Your task to perform on an android device: Open Yahoo.com Image 0: 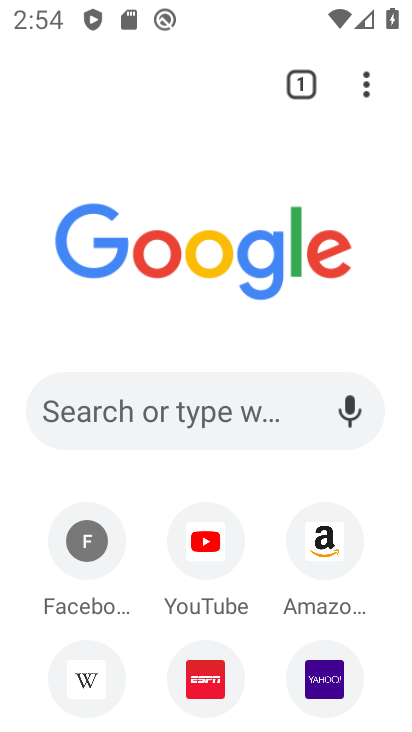
Step 0: click (332, 679)
Your task to perform on an android device: Open Yahoo.com Image 1: 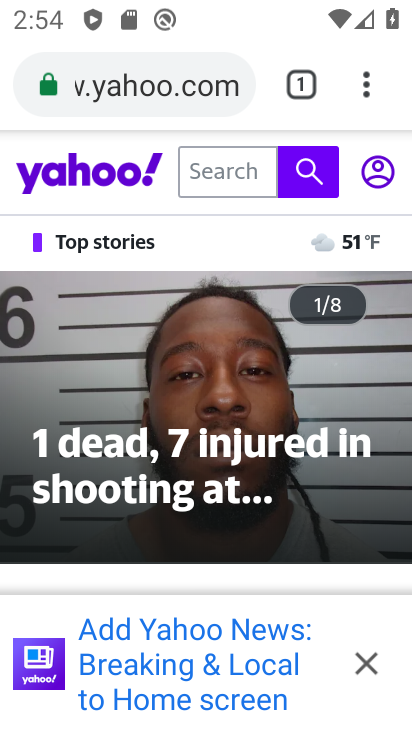
Step 1: task complete